Your task to perform on an android device: Look up the best rated desk lamps on IKEA Image 0: 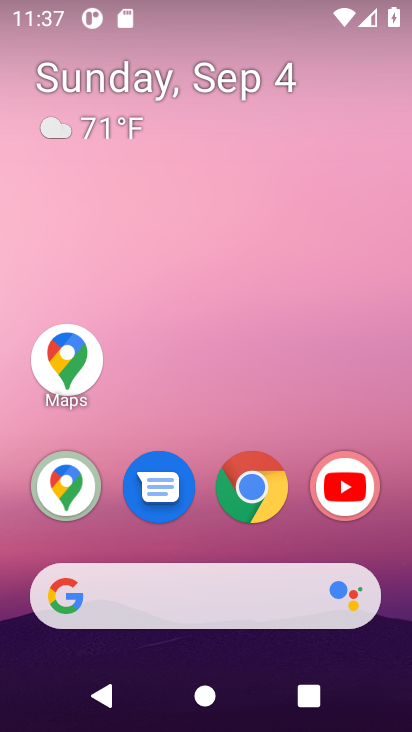
Step 0: click (362, 492)
Your task to perform on an android device: Look up the best rated desk lamps on IKEA Image 1: 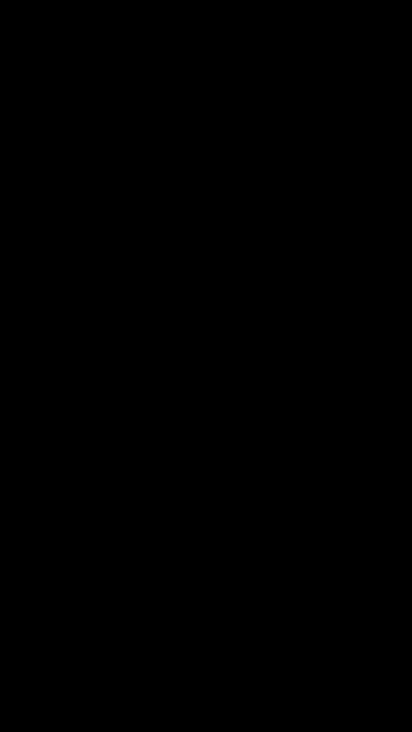
Step 1: task complete